Your task to perform on an android device: see tabs open on other devices in the chrome app Image 0: 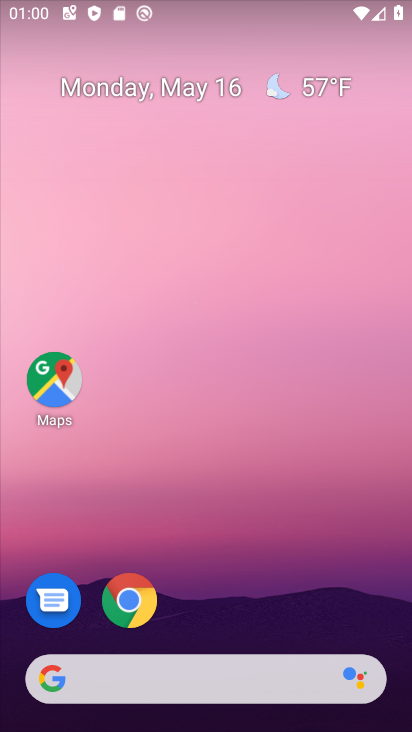
Step 0: click (126, 595)
Your task to perform on an android device: see tabs open on other devices in the chrome app Image 1: 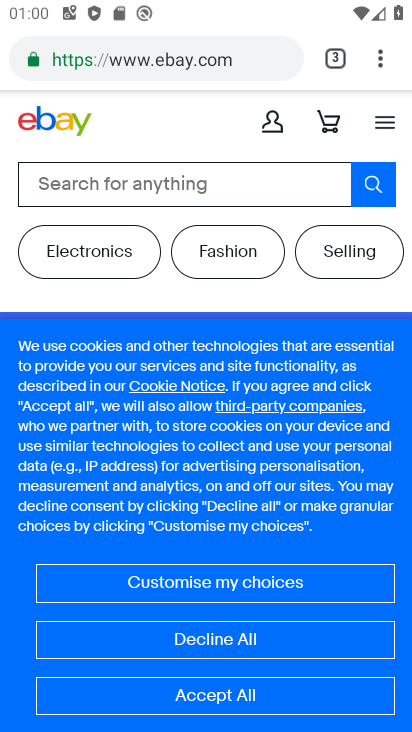
Step 1: task complete